Your task to perform on an android device: Add "razer thresher" to the cart on ebay, then select checkout. Image 0: 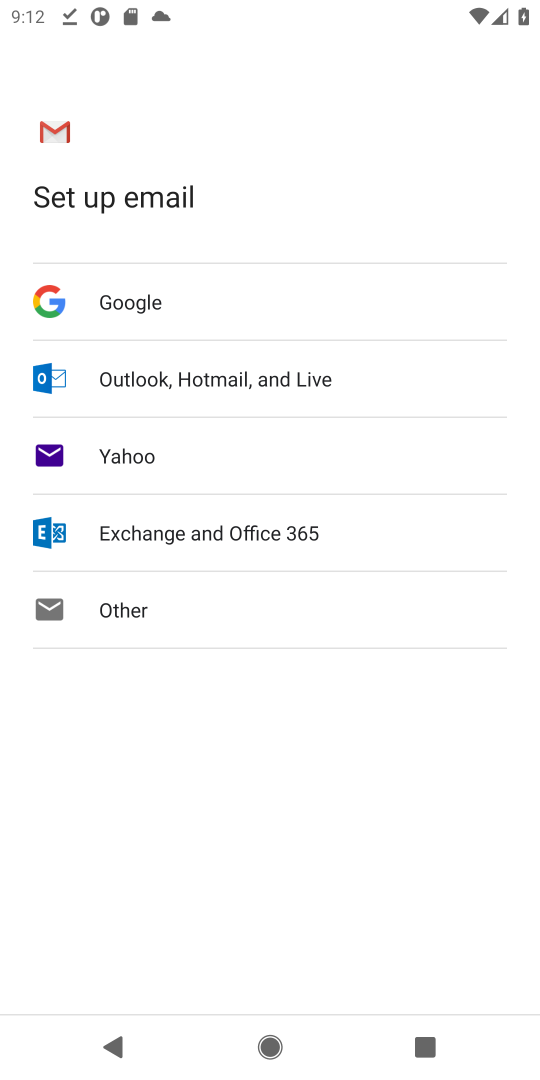
Step 0: press home button
Your task to perform on an android device: Add "razer thresher" to the cart on ebay, then select checkout. Image 1: 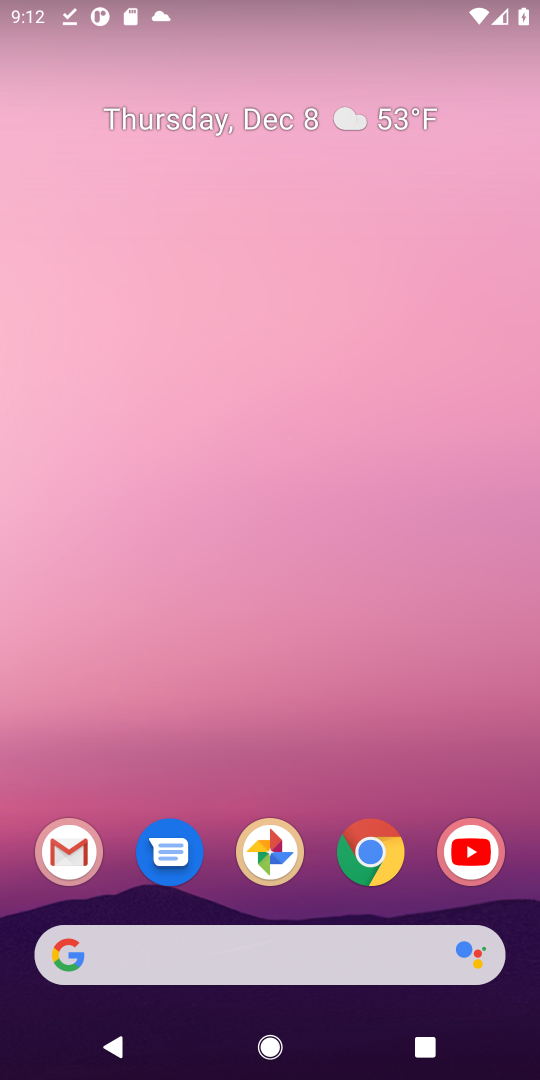
Step 1: click (213, 964)
Your task to perform on an android device: Add "razer thresher" to the cart on ebay, then select checkout. Image 2: 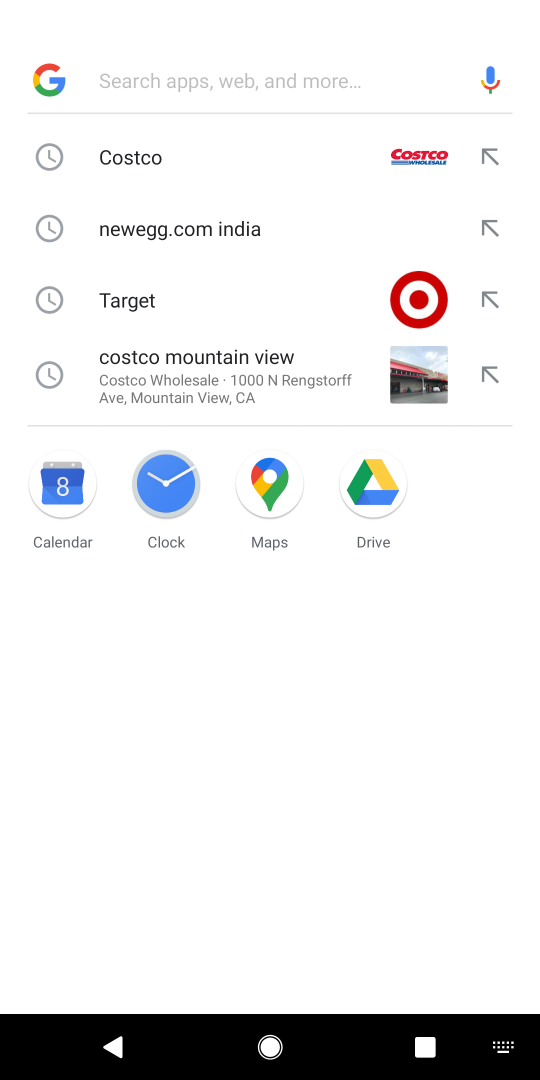
Step 2: type "ebay.com"
Your task to perform on an android device: Add "razer thresher" to the cart on ebay, then select checkout. Image 3: 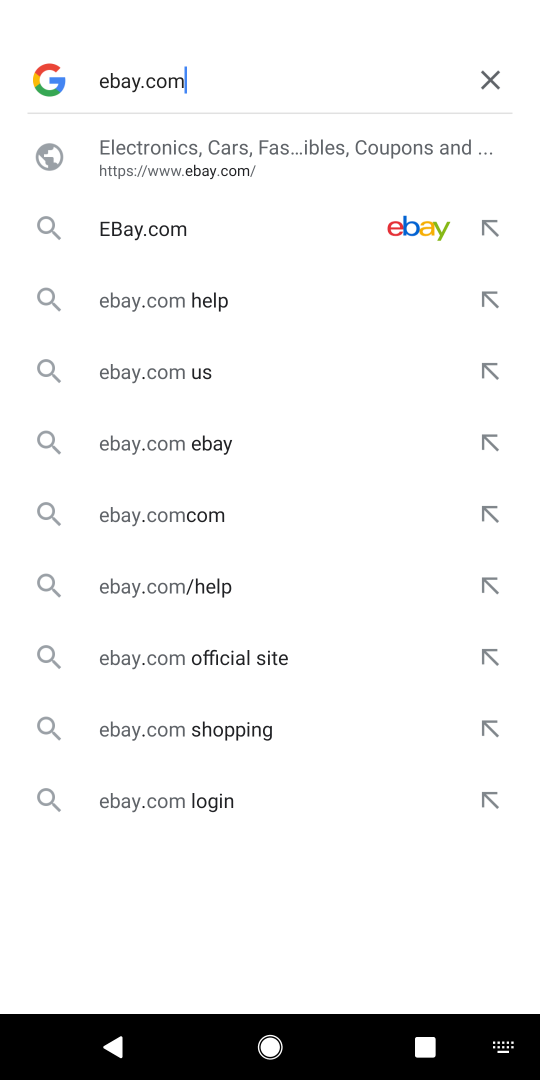
Step 3: click (323, 150)
Your task to perform on an android device: Add "razer thresher" to the cart on ebay, then select checkout. Image 4: 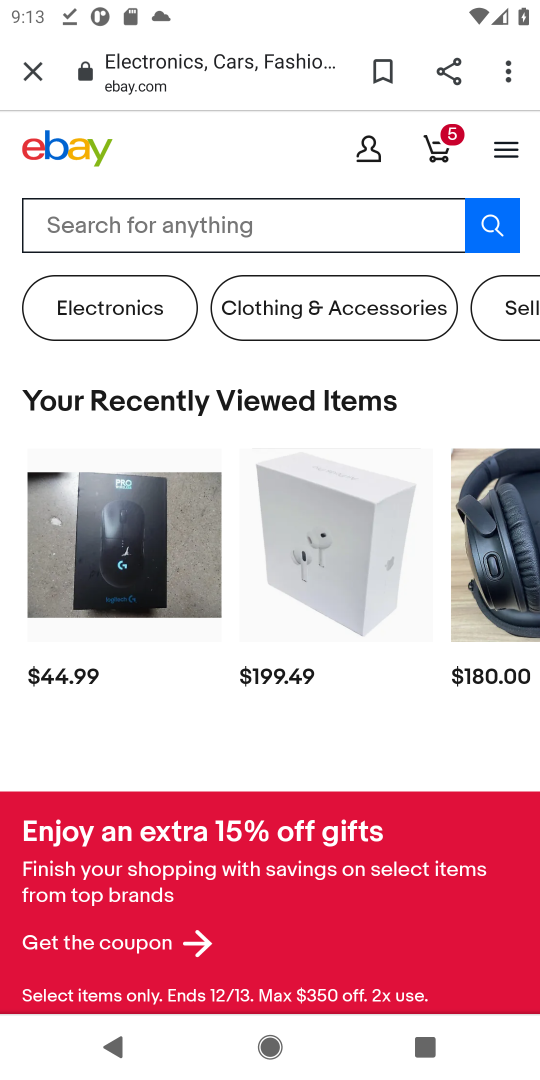
Step 4: click (133, 224)
Your task to perform on an android device: Add "razer thresher" to the cart on ebay, then select checkout. Image 5: 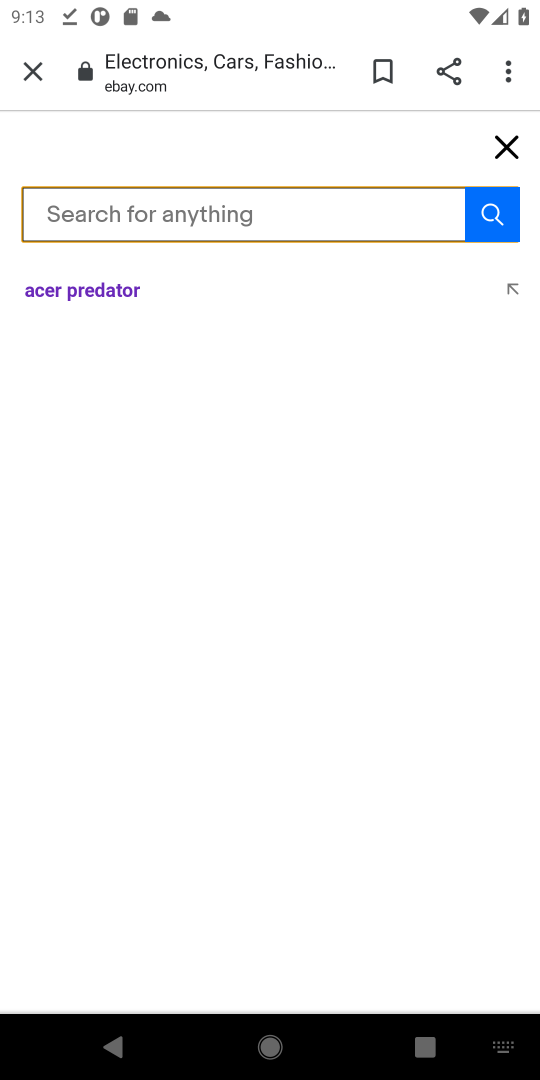
Step 5: click (91, 221)
Your task to perform on an android device: Add "razer thresher" to the cart on ebay, then select checkout. Image 6: 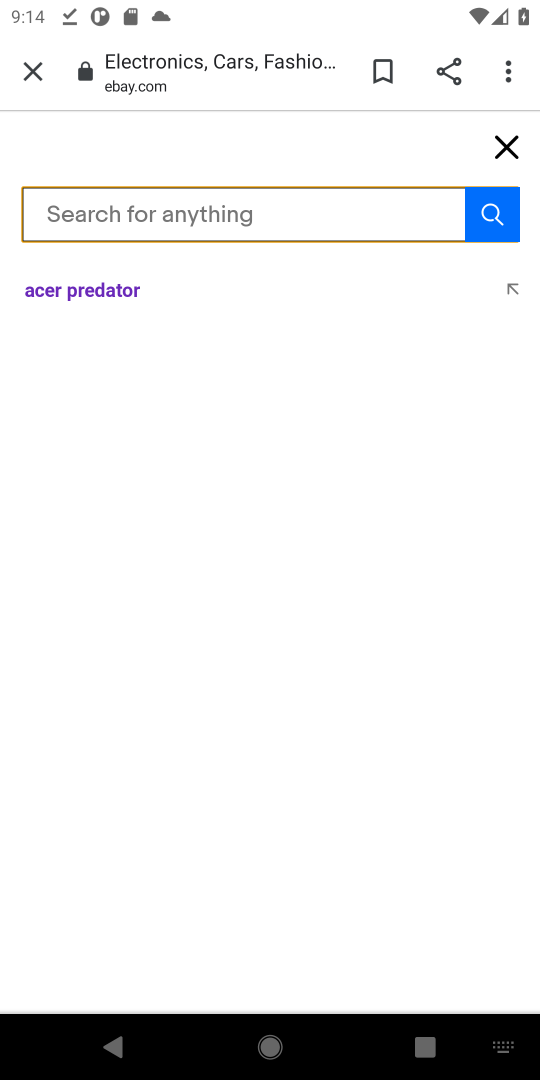
Step 6: type "razer thresher"
Your task to perform on an android device: Add "razer thresher" to the cart on ebay, then select checkout. Image 7: 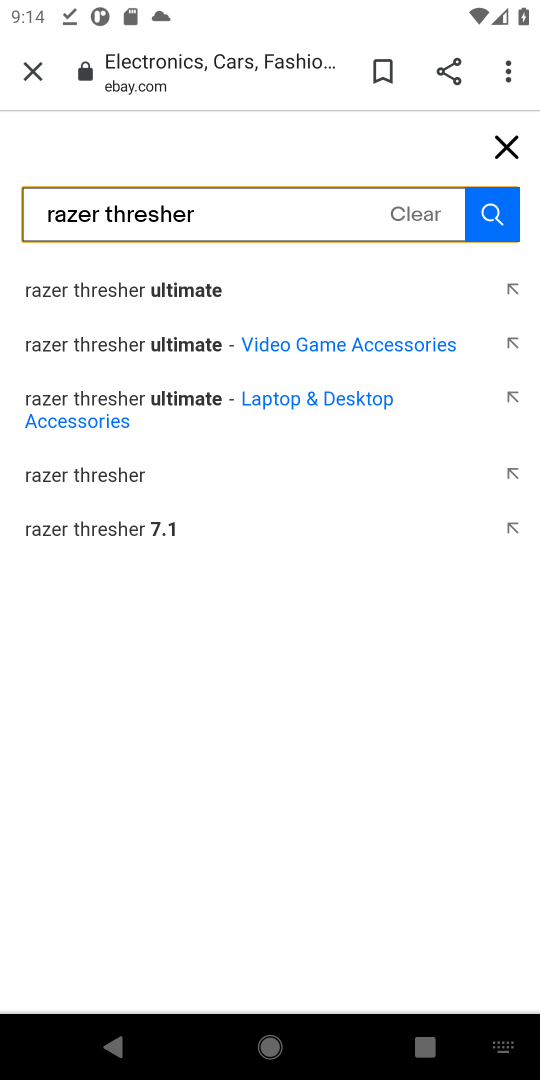
Step 7: click (343, 269)
Your task to perform on an android device: Add "razer thresher" to the cart on ebay, then select checkout. Image 8: 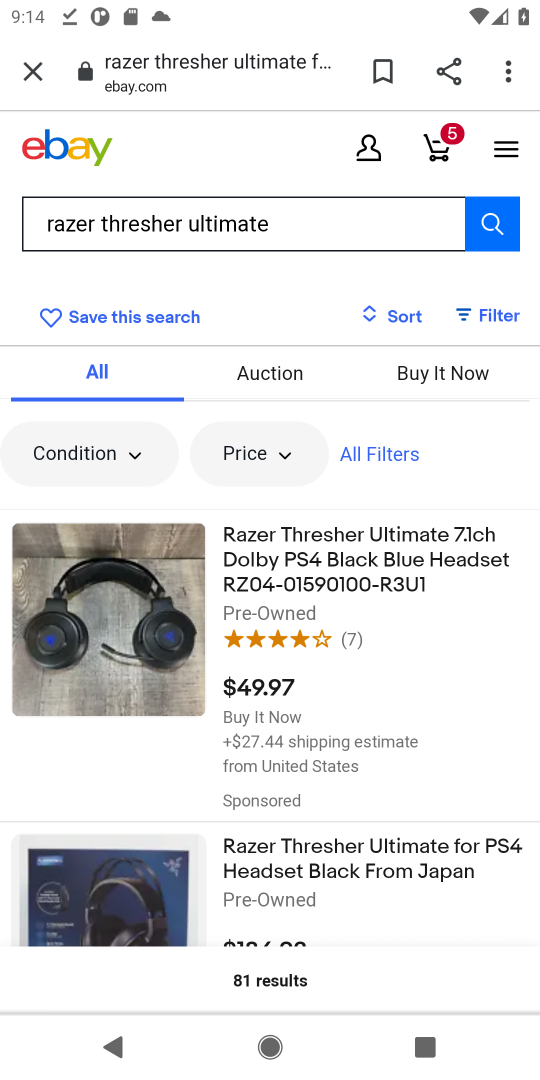
Step 8: click (392, 531)
Your task to perform on an android device: Add "razer thresher" to the cart on ebay, then select checkout. Image 9: 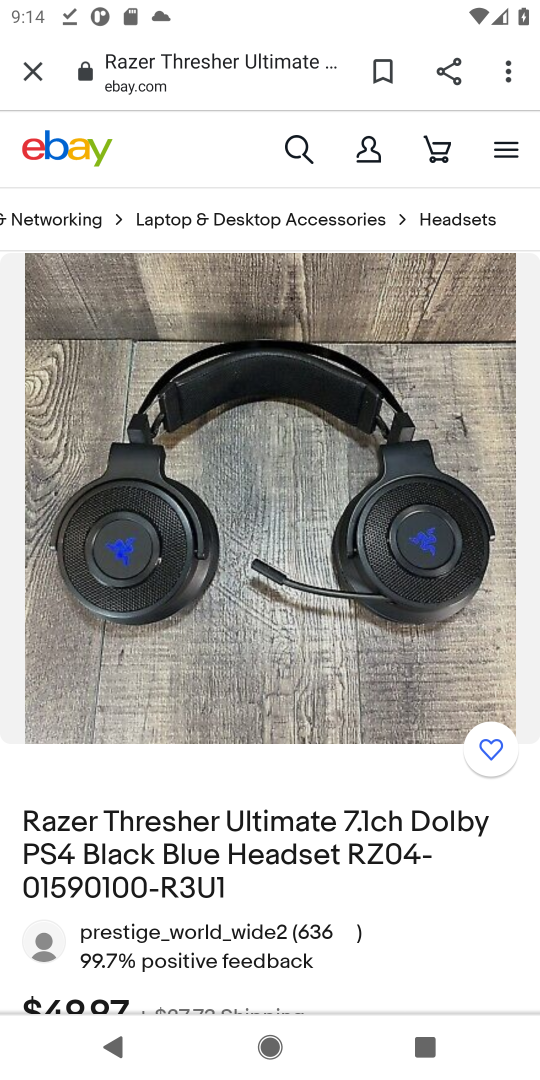
Step 9: drag from (438, 770) to (312, 292)
Your task to perform on an android device: Add "razer thresher" to the cart on ebay, then select checkout. Image 10: 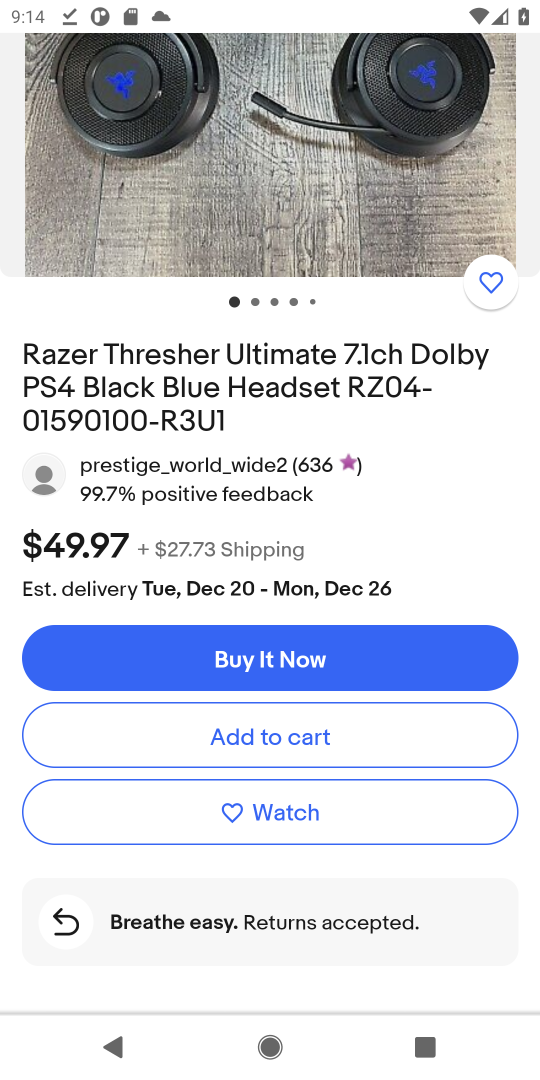
Step 10: click (326, 726)
Your task to perform on an android device: Add "razer thresher" to the cart on ebay, then select checkout. Image 11: 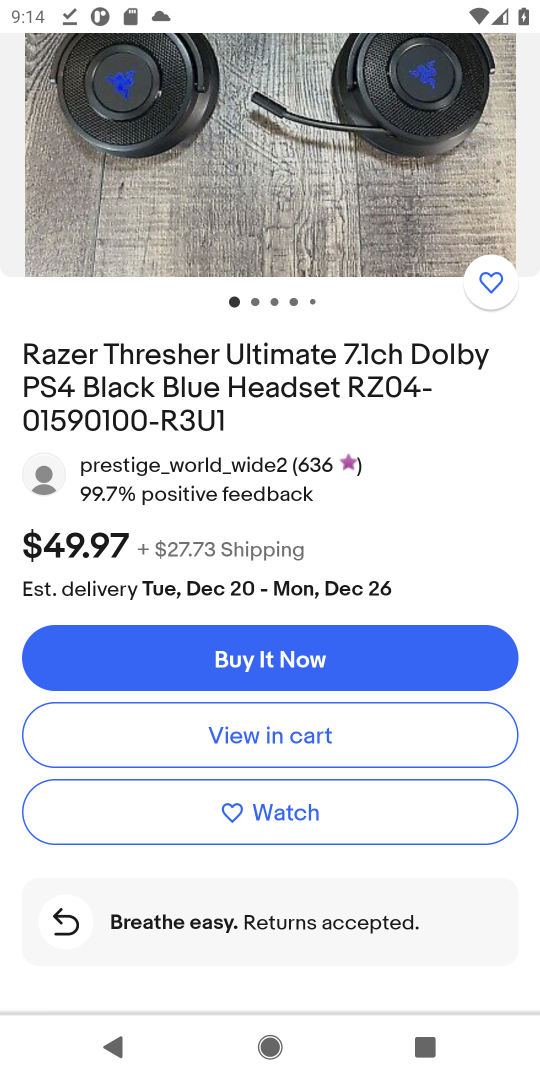
Step 11: task complete